Your task to perform on an android device: Toggle the flashlight Image 0: 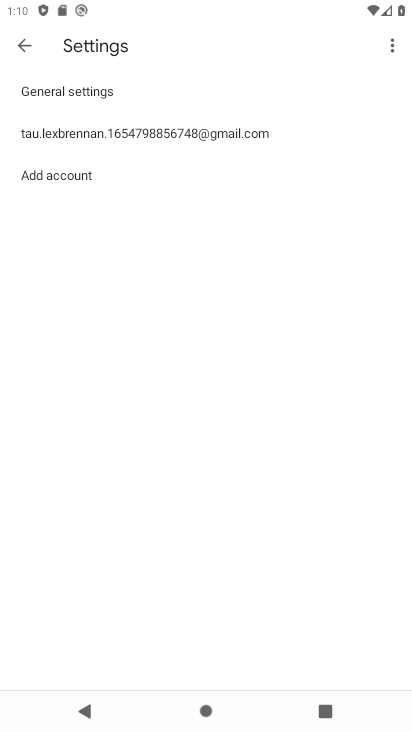
Step 0: press home button
Your task to perform on an android device: Toggle the flashlight Image 1: 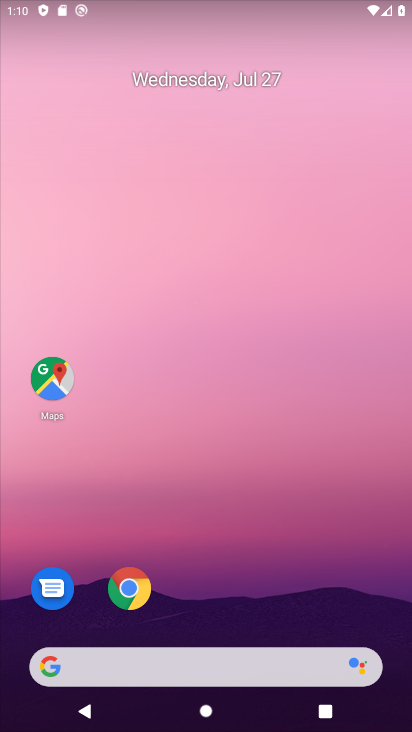
Step 1: drag from (239, 609) to (307, 65)
Your task to perform on an android device: Toggle the flashlight Image 2: 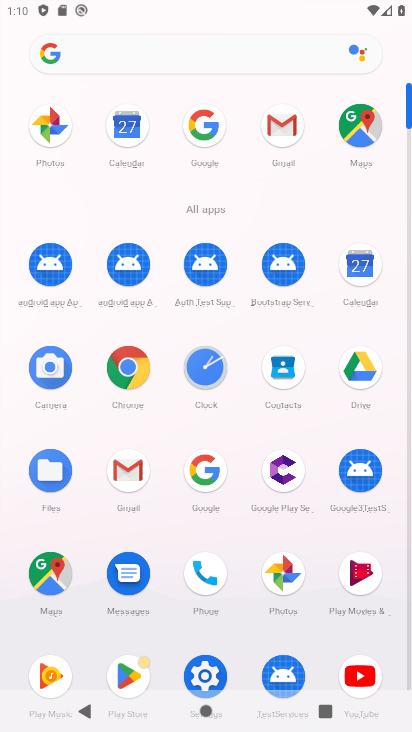
Step 2: click (209, 660)
Your task to perform on an android device: Toggle the flashlight Image 3: 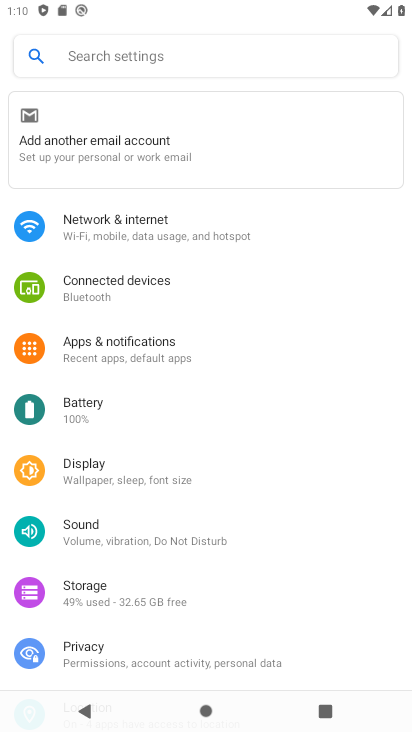
Step 3: task complete